Your task to perform on an android device: see tabs open on other devices in the chrome app Image 0: 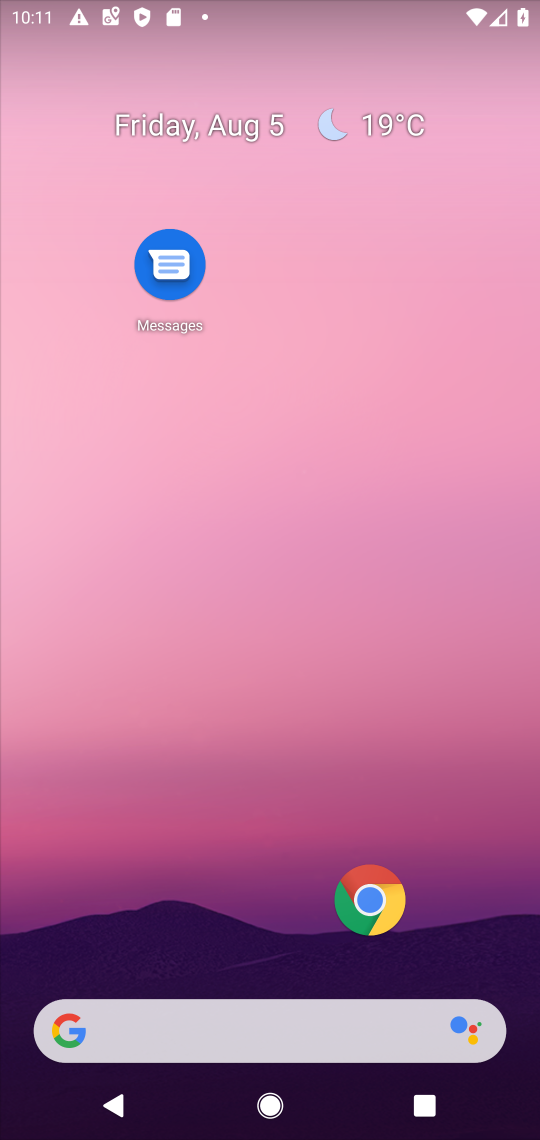
Step 0: drag from (252, 951) to (241, 15)
Your task to perform on an android device: see tabs open on other devices in the chrome app Image 1: 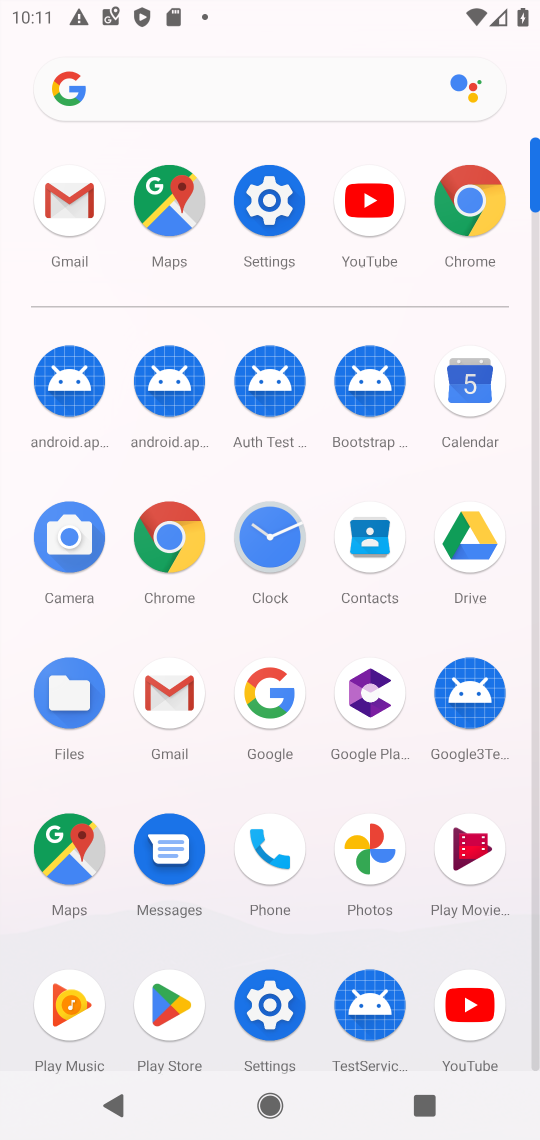
Step 1: click (172, 533)
Your task to perform on an android device: see tabs open on other devices in the chrome app Image 2: 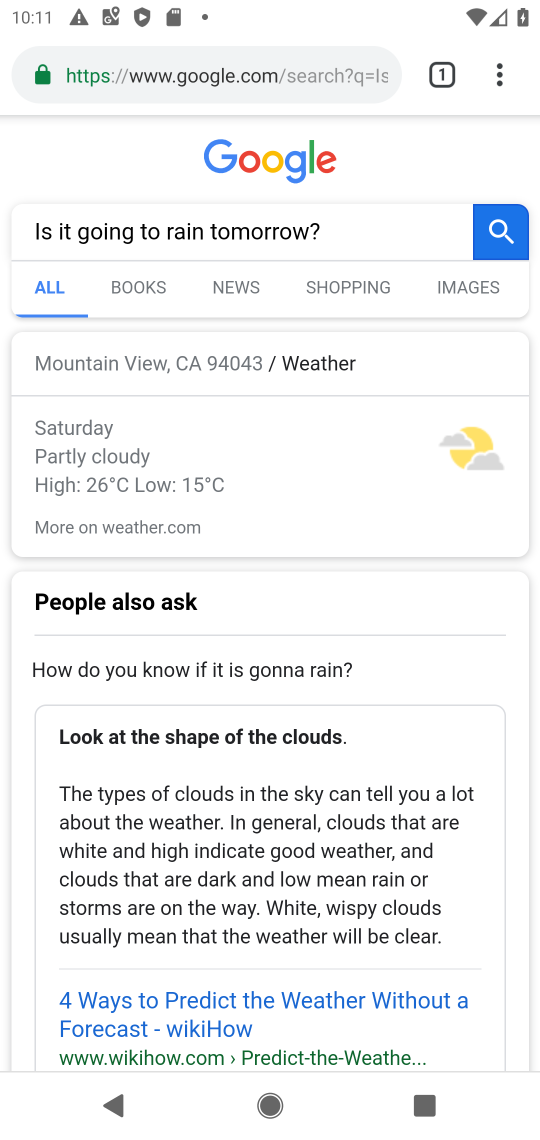
Step 2: task complete